Your task to perform on an android device: Go to battery settings Image 0: 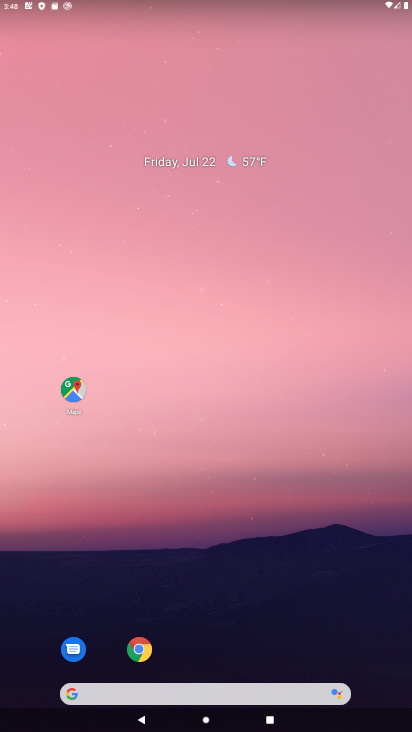
Step 0: drag from (44, 614) to (212, 0)
Your task to perform on an android device: Go to battery settings Image 1: 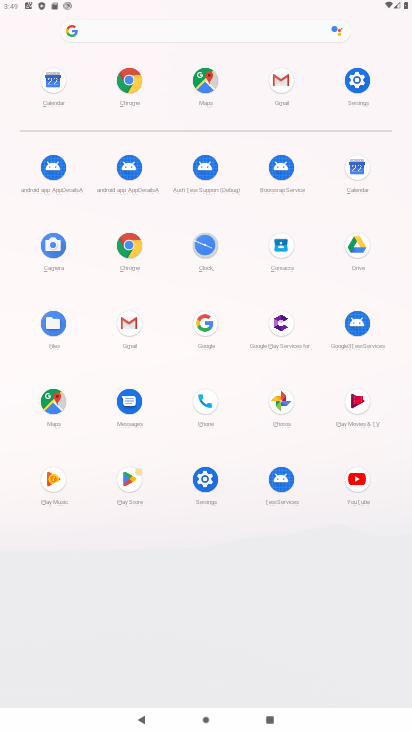
Step 1: click (188, 482)
Your task to perform on an android device: Go to battery settings Image 2: 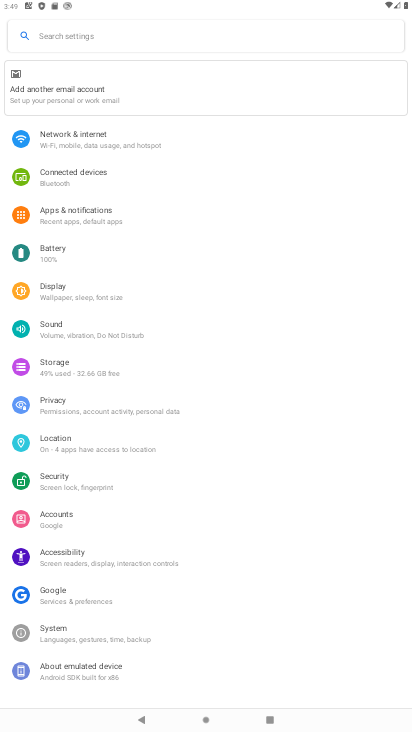
Step 2: click (73, 254)
Your task to perform on an android device: Go to battery settings Image 3: 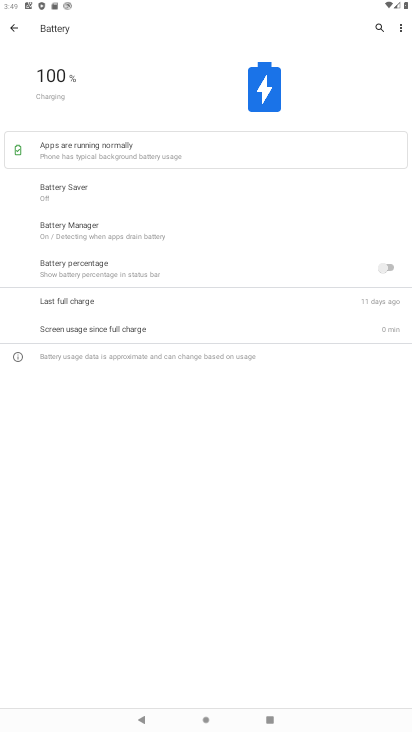
Step 3: task complete